Your task to perform on an android device: Go to Yahoo.com Image 0: 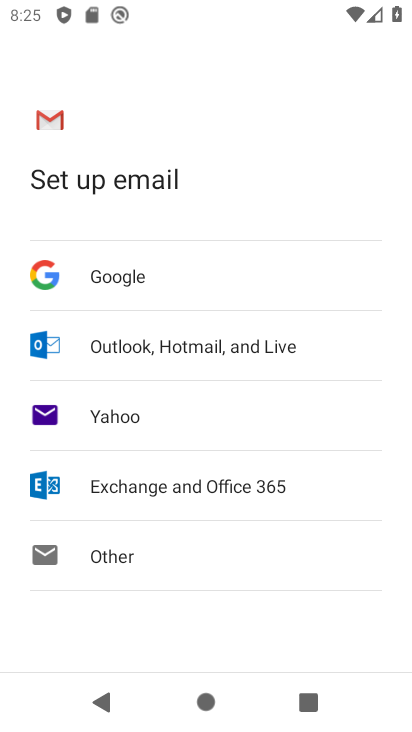
Step 0: press home button
Your task to perform on an android device: Go to Yahoo.com Image 1: 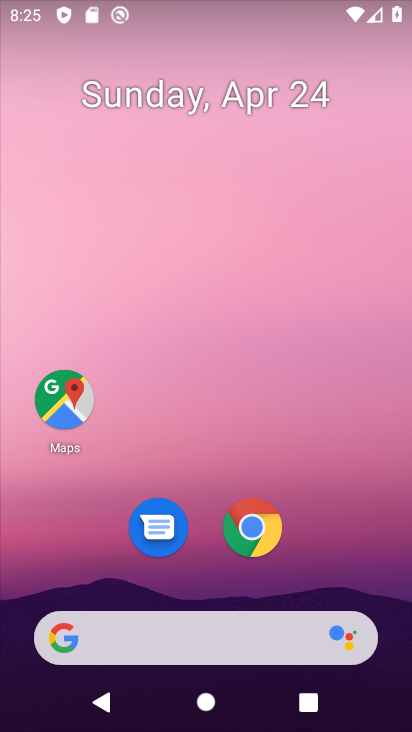
Step 1: click (256, 531)
Your task to perform on an android device: Go to Yahoo.com Image 2: 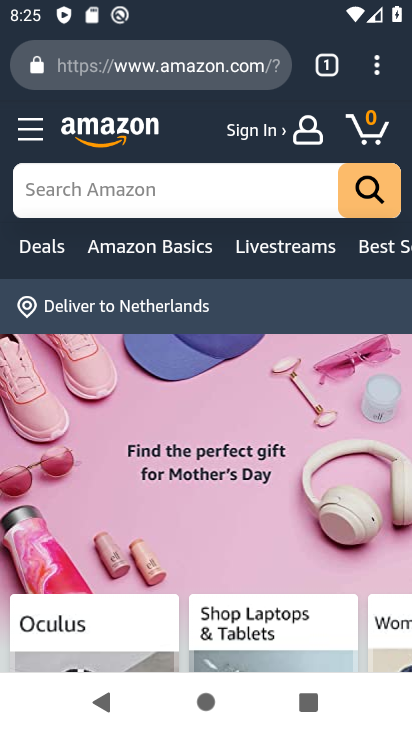
Step 2: click (377, 67)
Your task to perform on an android device: Go to Yahoo.com Image 3: 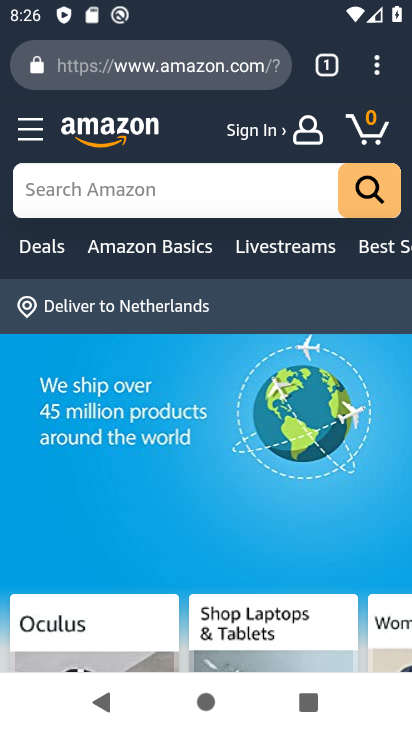
Step 3: click (377, 65)
Your task to perform on an android device: Go to Yahoo.com Image 4: 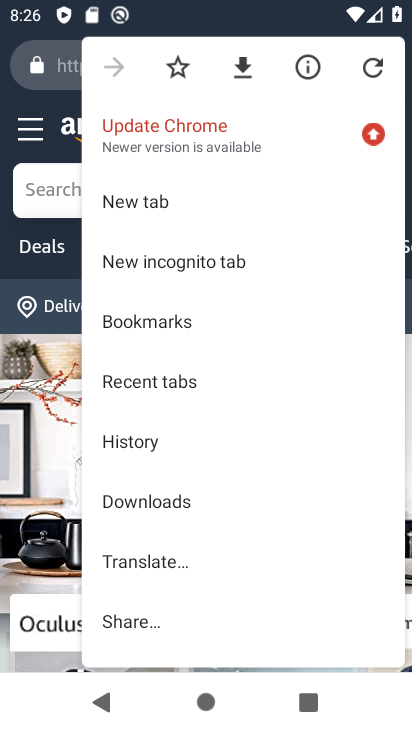
Step 4: click (55, 74)
Your task to perform on an android device: Go to Yahoo.com Image 5: 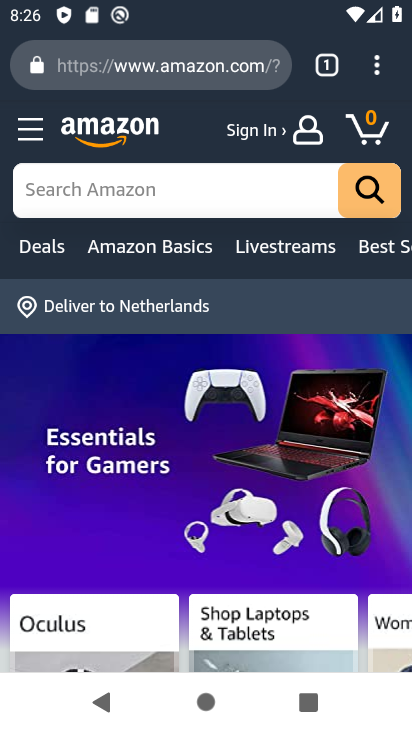
Step 5: click (96, 73)
Your task to perform on an android device: Go to Yahoo.com Image 6: 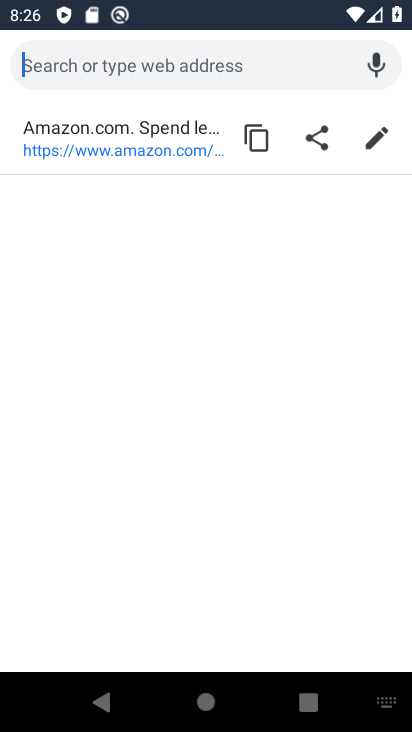
Step 6: type "yahoo.com"
Your task to perform on an android device: Go to Yahoo.com Image 7: 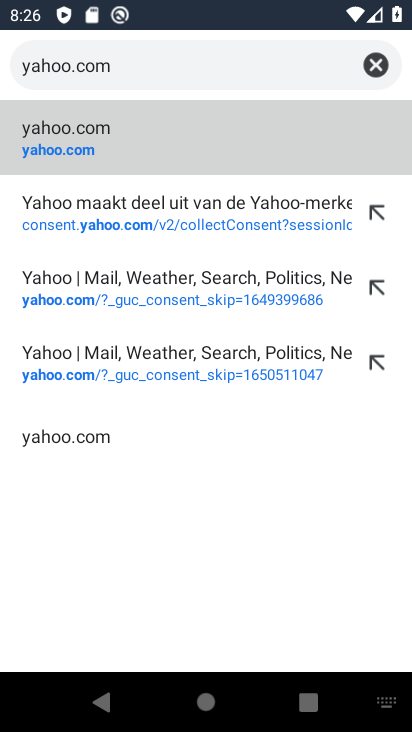
Step 7: click (43, 137)
Your task to perform on an android device: Go to Yahoo.com Image 8: 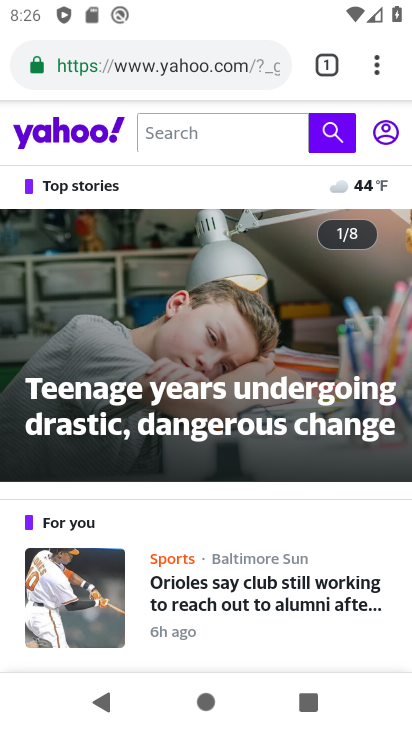
Step 8: task complete